Your task to perform on an android device: Open CNN.com Image 0: 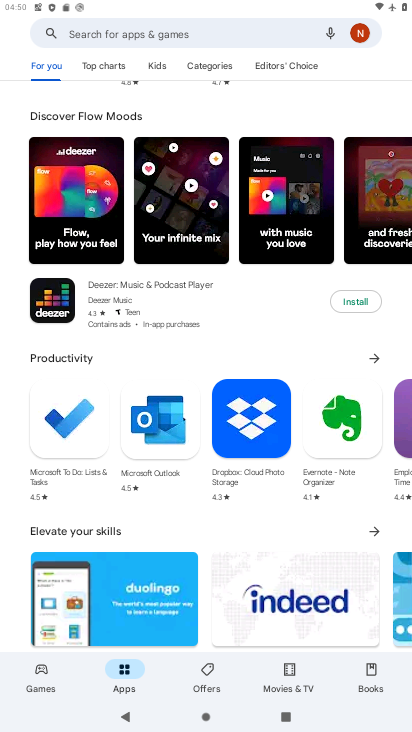
Step 0: press home button
Your task to perform on an android device: Open CNN.com Image 1: 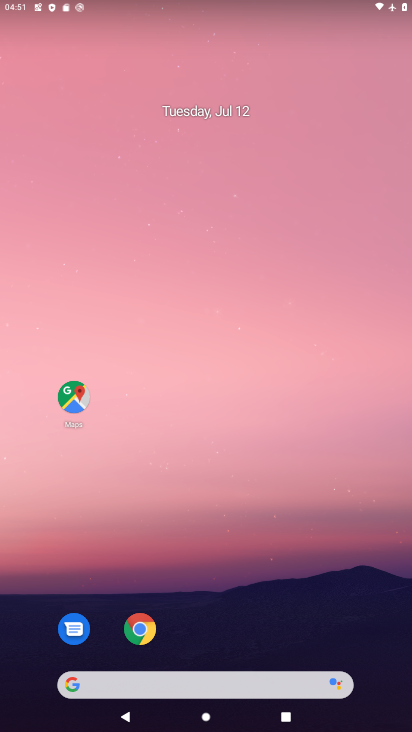
Step 1: drag from (236, 354) to (243, 62)
Your task to perform on an android device: Open CNN.com Image 2: 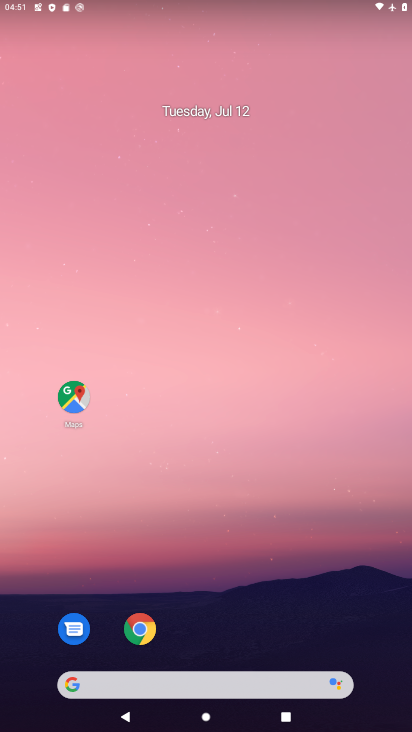
Step 2: drag from (223, 585) to (296, 120)
Your task to perform on an android device: Open CNN.com Image 3: 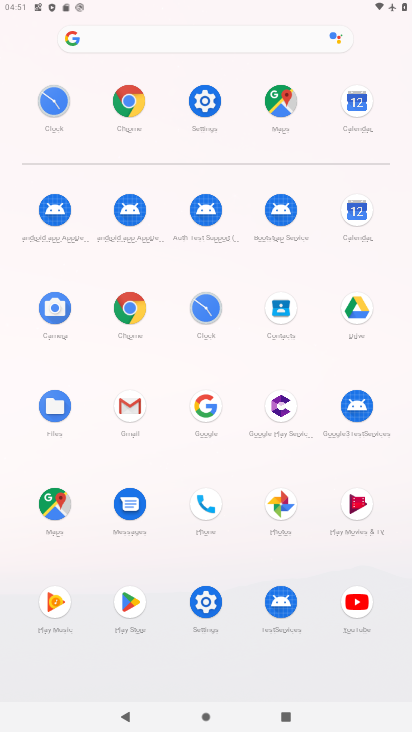
Step 3: click (135, 93)
Your task to perform on an android device: Open CNN.com Image 4: 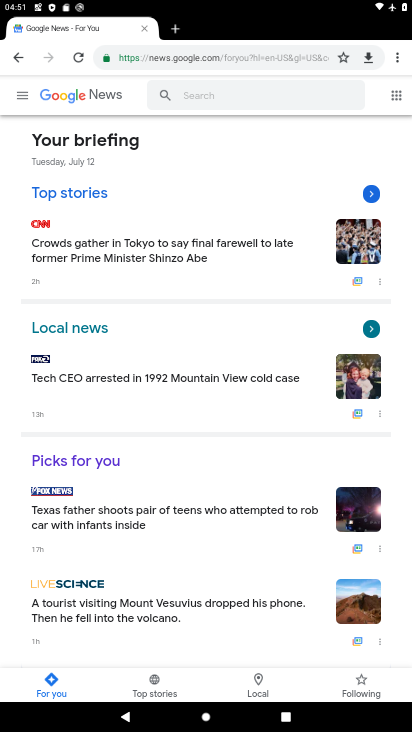
Step 4: click (180, 67)
Your task to perform on an android device: Open CNN.com Image 5: 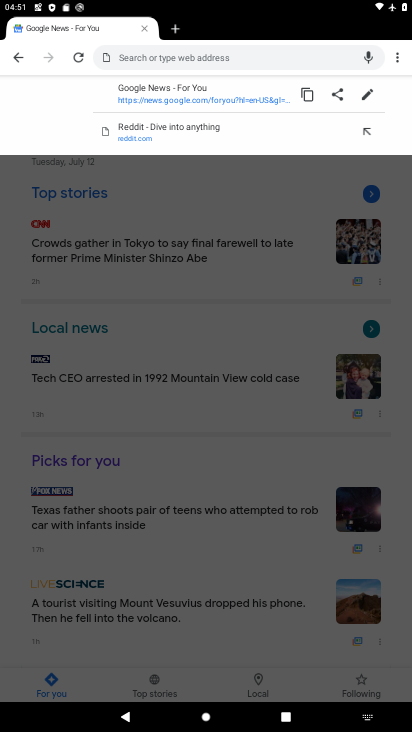
Step 5: type "cnn.com"
Your task to perform on an android device: Open CNN.com Image 6: 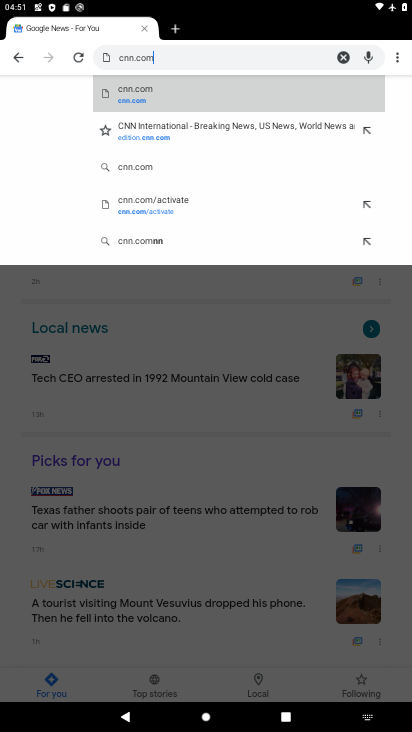
Step 6: click (181, 97)
Your task to perform on an android device: Open CNN.com Image 7: 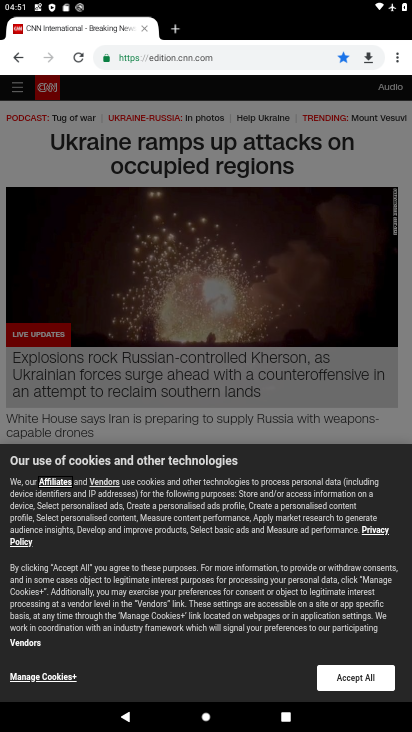
Step 7: task complete